Your task to perform on an android device: change the clock display to digital Image 0: 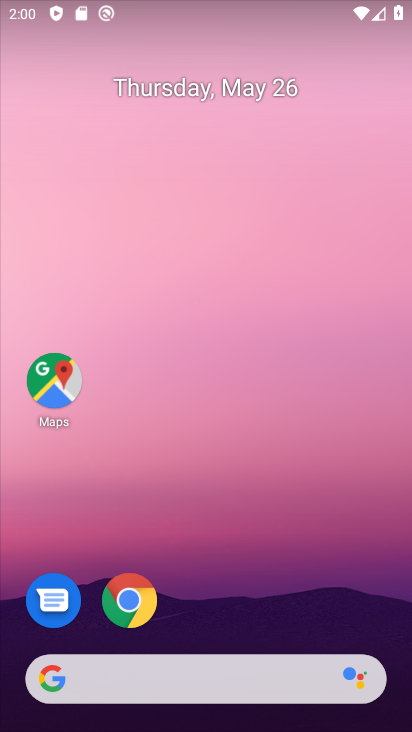
Step 0: drag from (209, 509) to (141, 19)
Your task to perform on an android device: change the clock display to digital Image 1: 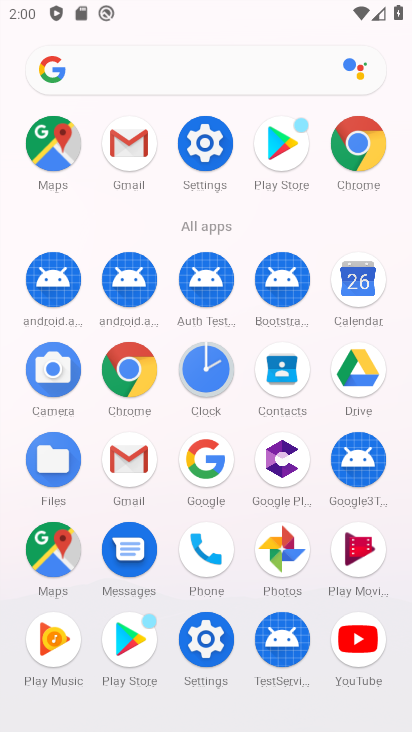
Step 1: drag from (0, 551) to (10, 307)
Your task to perform on an android device: change the clock display to digital Image 2: 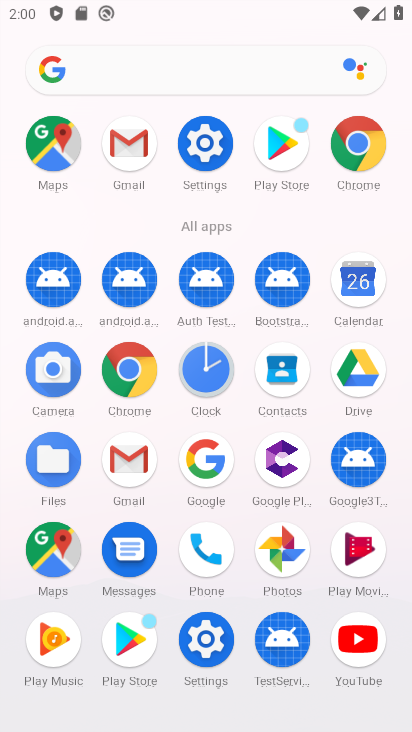
Step 2: drag from (1, 545) to (19, 241)
Your task to perform on an android device: change the clock display to digital Image 3: 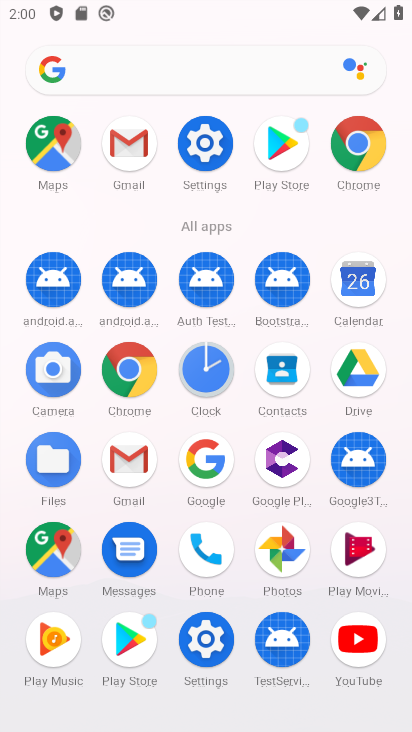
Step 3: click (203, 362)
Your task to perform on an android device: change the clock display to digital Image 4: 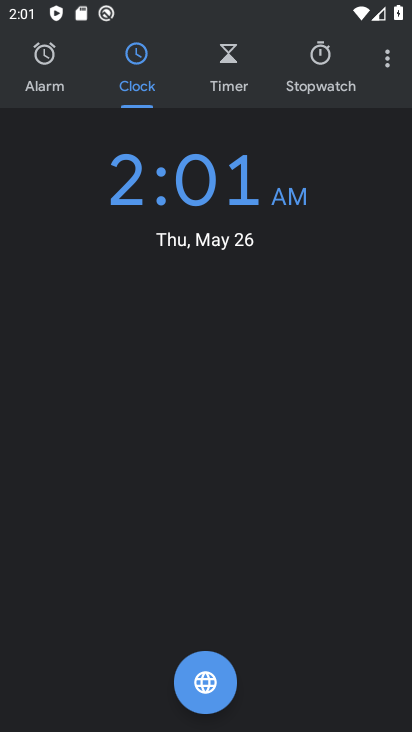
Step 4: task complete